Your task to perform on an android device: toggle translation in the chrome app Image 0: 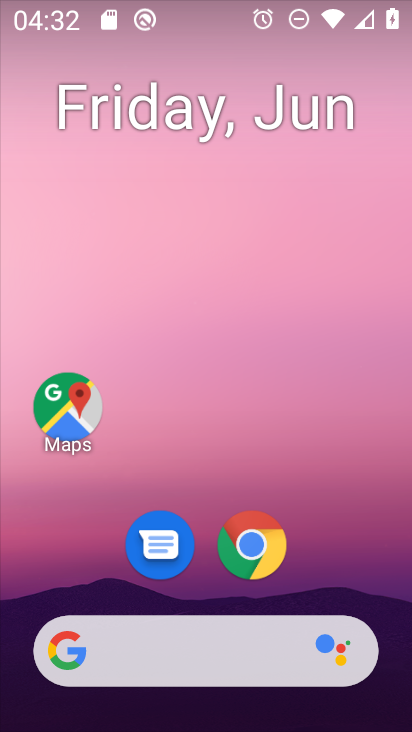
Step 0: click (268, 554)
Your task to perform on an android device: toggle translation in the chrome app Image 1: 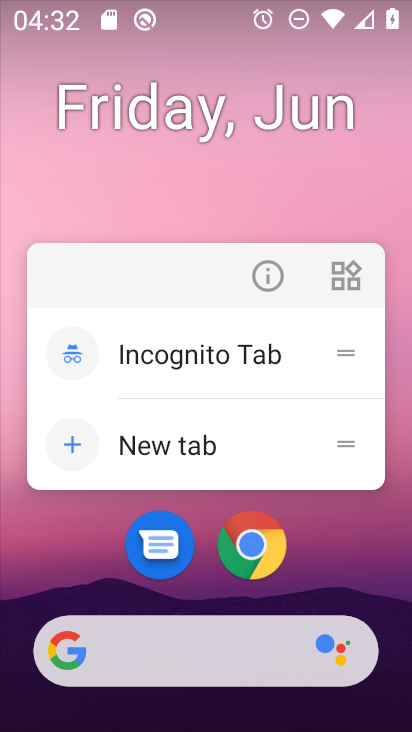
Step 1: click (250, 546)
Your task to perform on an android device: toggle translation in the chrome app Image 2: 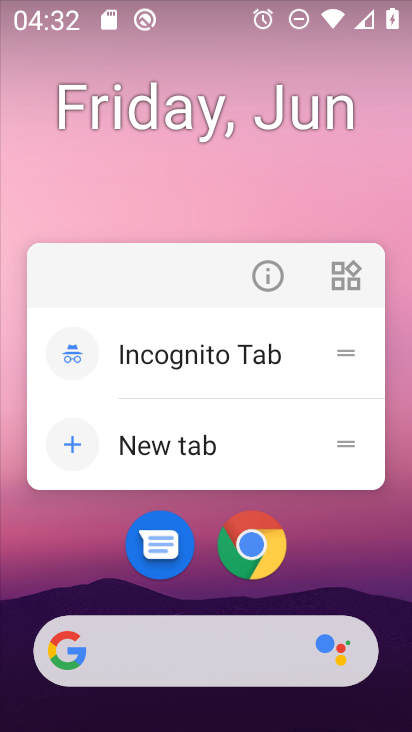
Step 2: click (251, 545)
Your task to perform on an android device: toggle translation in the chrome app Image 3: 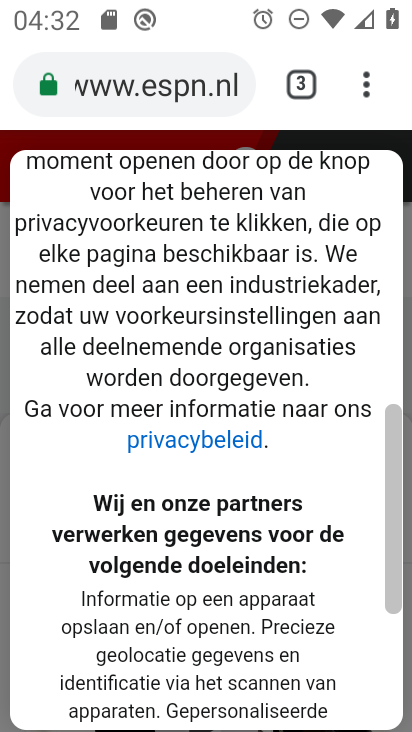
Step 3: click (373, 87)
Your task to perform on an android device: toggle translation in the chrome app Image 4: 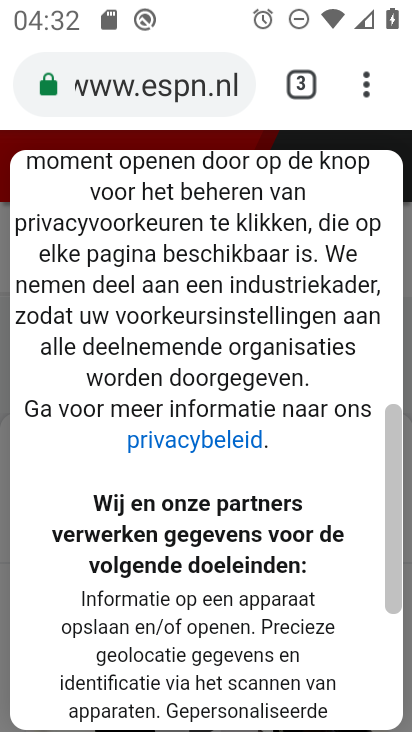
Step 4: click (366, 84)
Your task to perform on an android device: toggle translation in the chrome app Image 5: 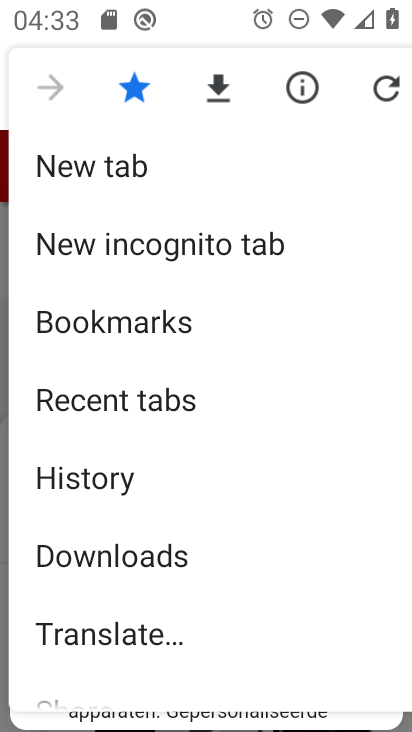
Step 5: drag from (213, 576) to (211, 312)
Your task to perform on an android device: toggle translation in the chrome app Image 6: 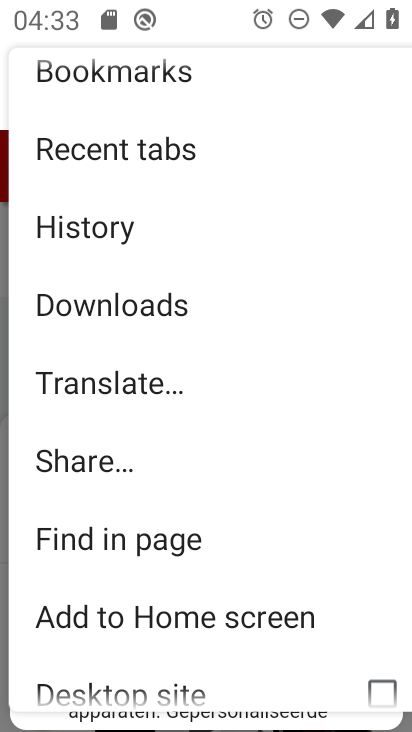
Step 6: drag from (217, 589) to (219, 255)
Your task to perform on an android device: toggle translation in the chrome app Image 7: 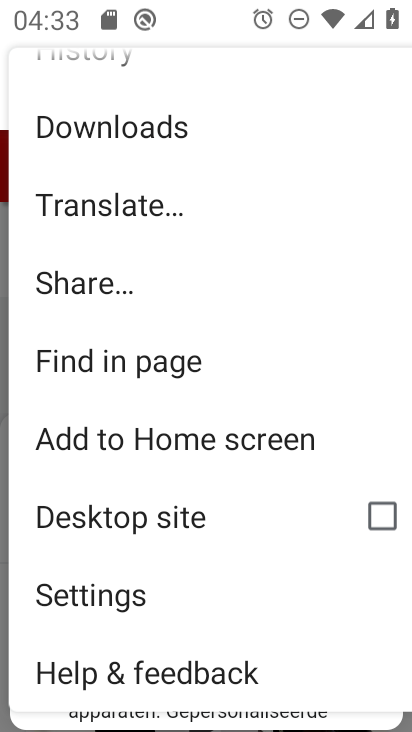
Step 7: click (128, 593)
Your task to perform on an android device: toggle translation in the chrome app Image 8: 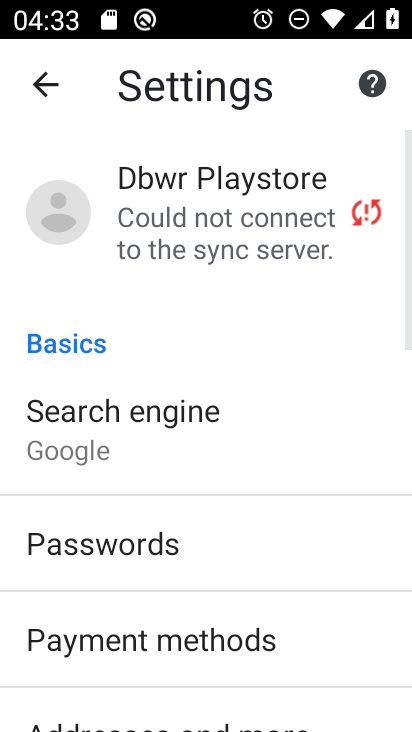
Step 8: drag from (178, 662) to (194, 147)
Your task to perform on an android device: toggle translation in the chrome app Image 9: 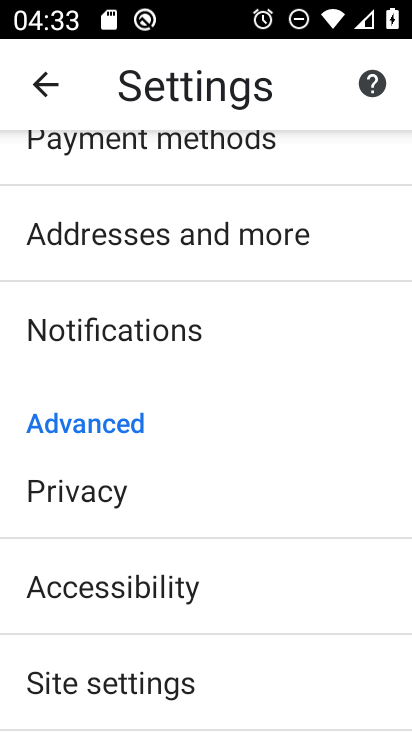
Step 9: drag from (188, 603) to (194, 39)
Your task to perform on an android device: toggle translation in the chrome app Image 10: 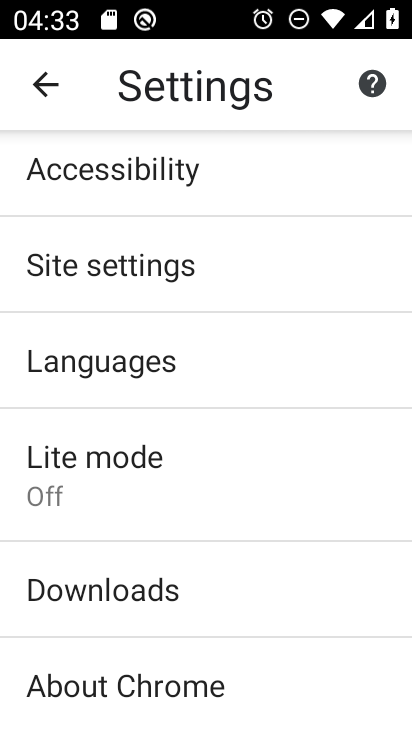
Step 10: click (178, 374)
Your task to perform on an android device: toggle translation in the chrome app Image 11: 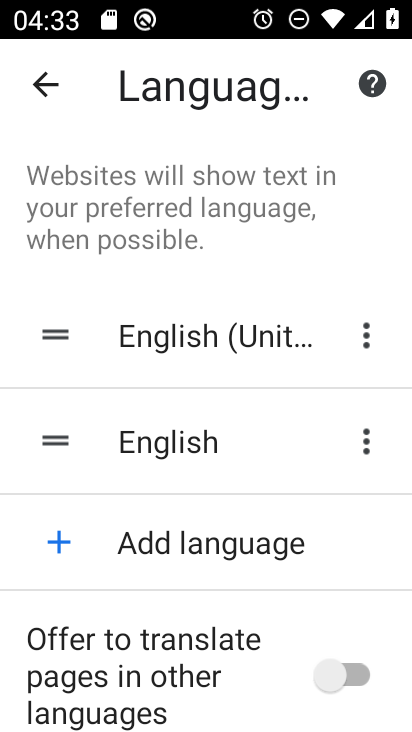
Step 11: drag from (296, 616) to (287, 249)
Your task to perform on an android device: toggle translation in the chrome app Image 12: 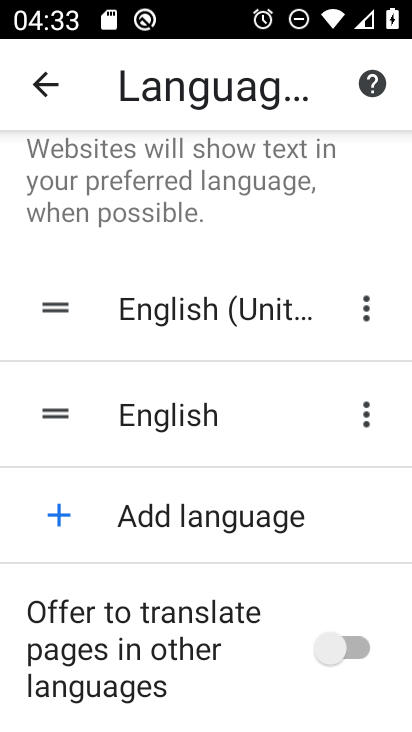
Step 12: click (351, 654)
Your task to perform on an android device: toggle translation in the chrome app Image 13: 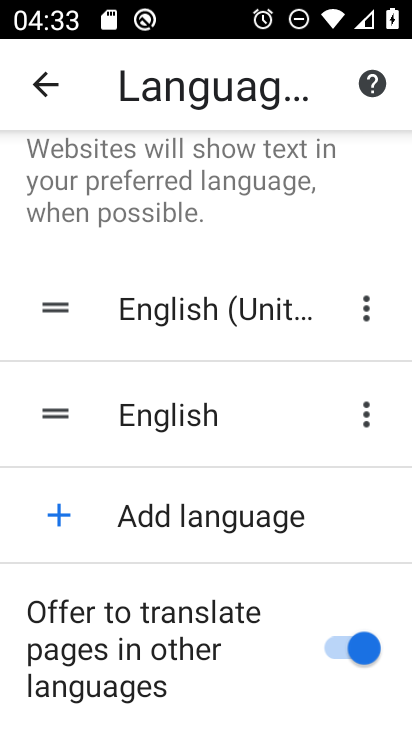
Step 13: task complete